Your task to perform on an android device: Open accessibility settings Image 0: 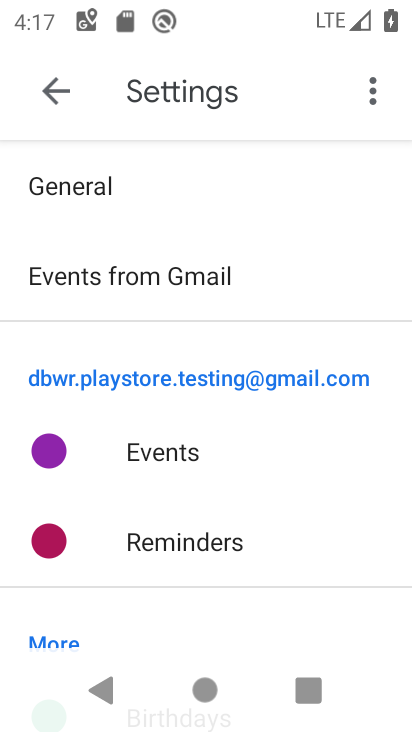
Step 0: press home button
Your task to perform on an android device: Open accessibility settings Image 1: 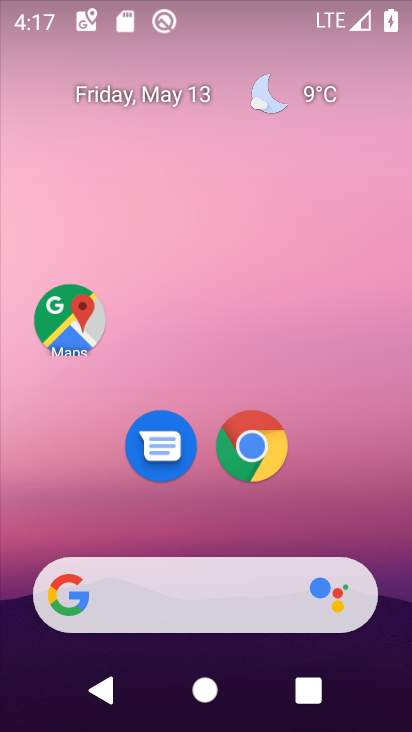
Step 1: drag from (197, 509) to (184, 107)
Your task to perform on an android device: Open accessibility settings Image 2: 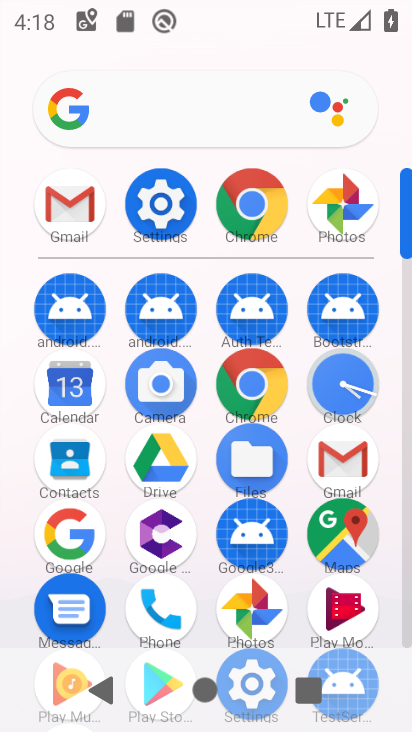
Step 2: drag from (164, 586) to (187, 259)
Your task to perform on an android device: Open accessibility settings Image 3: 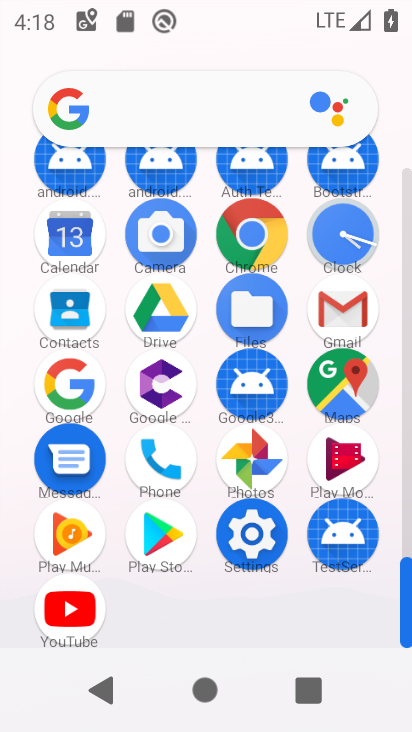
Step 3: click (254, 557)
Your task to perform on an android device: Open accessibility settings Image 4: 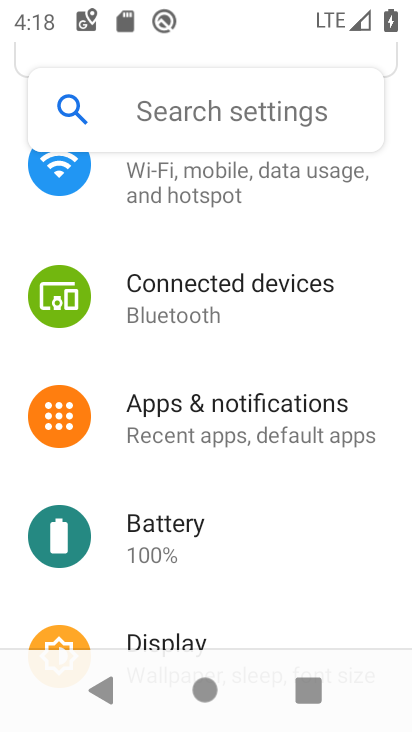
Step 4: drag from (211, 569) to (169, 341)
Your task to perform on an android device: Open accessibility settings Image 5: 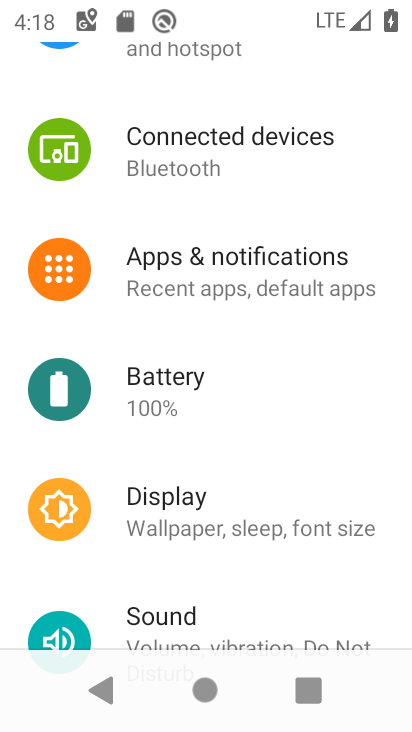
Step 5: drag from (180, 571) to (159, 345)
Your task to perform on an android device: Open accessibility settings Image 6: 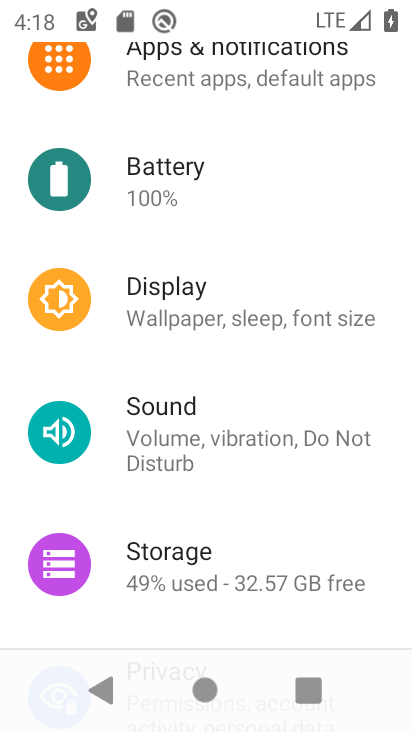
Step 6: drag from (194, 555) to (156, 372)
Your task to perform on an android device: Open accessibility settings Image 7: 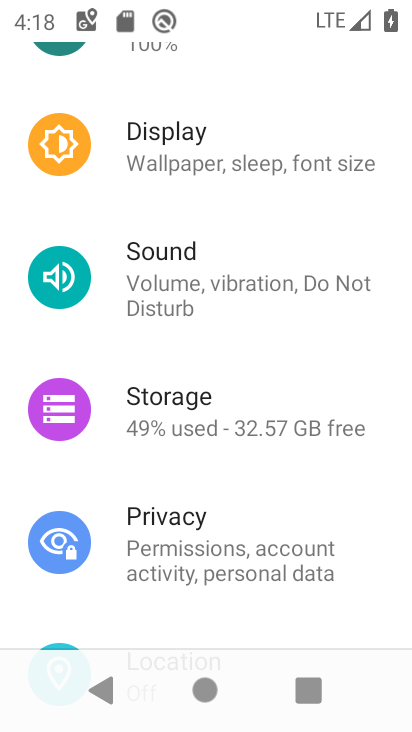
Step 7: drag from (126, 538) to (131, 245)
Your task to perform on an android device: Open accessibility settings Image 8: 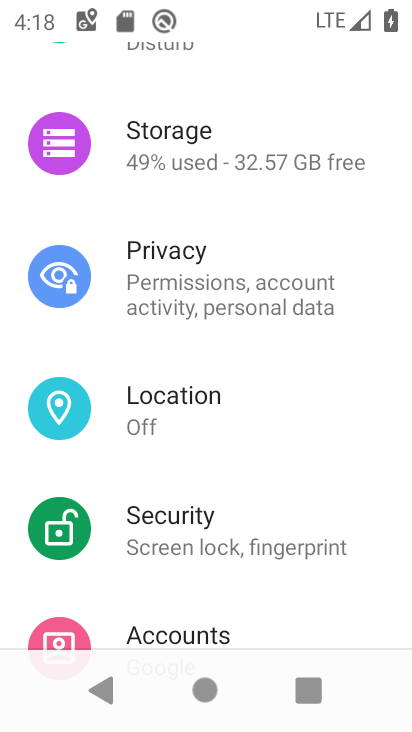
Step 8: drag from (104, 597) to (72, 221)
Your task to perform on an android device: Open accessibility settings Image 9: 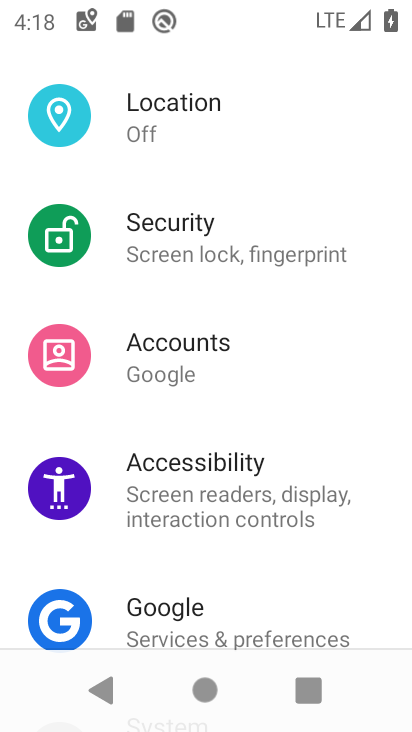
Step 9: click (124, 497)
Your task to perform on an android device: Open accessibility settings Image 10: 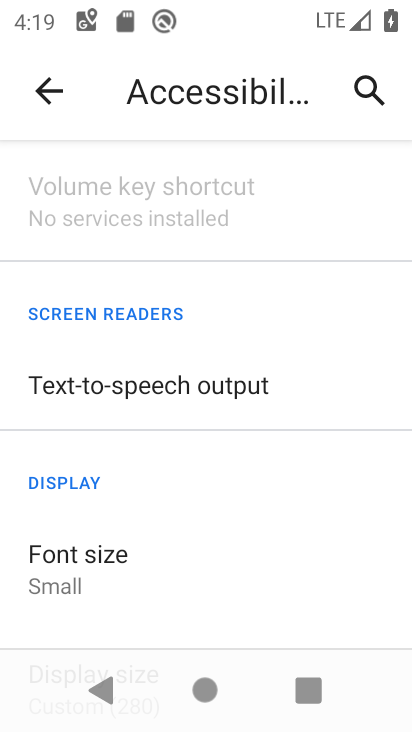
Step 10: task complete